Your task to perform on an android device: turn off sleep mode Image 0: 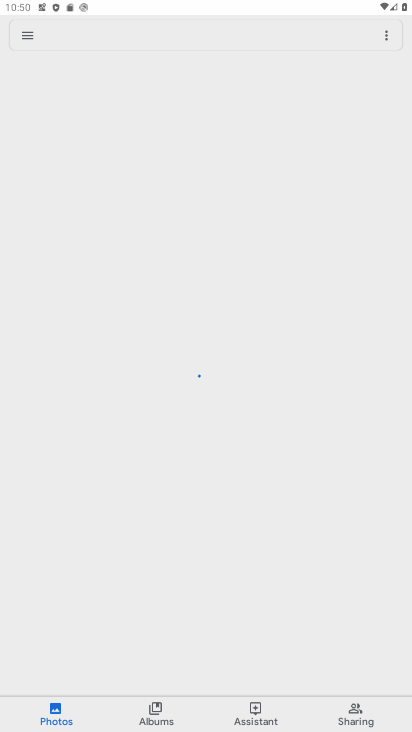
Step 0: press back button
Your task to perform on an android device: turn off sleep mode Image 1: 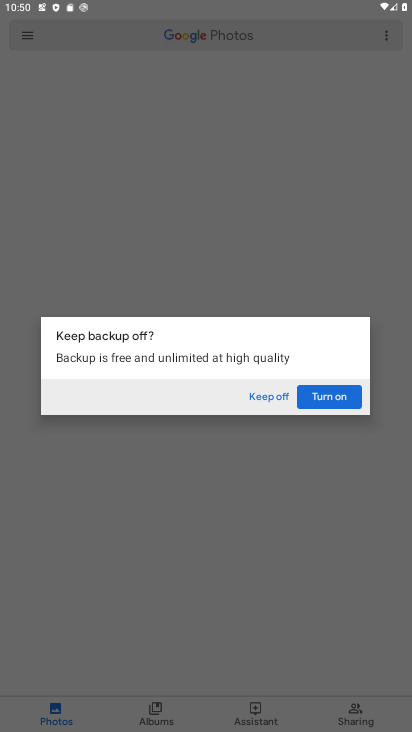
Step 1: press home button
Your task to perform on an android device: turn off sleep mode Image 2: 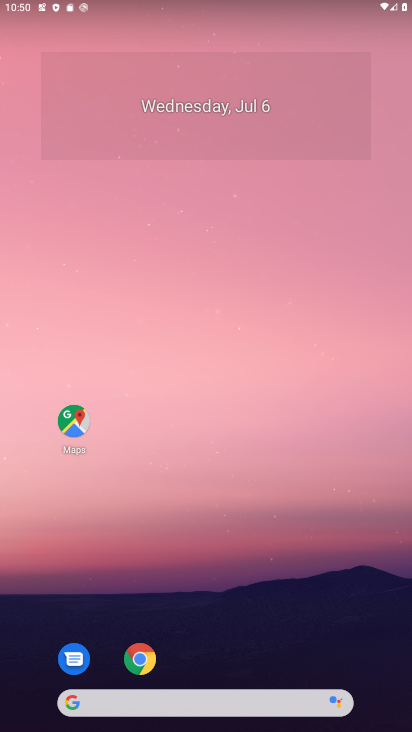
Step 2: drag from (220, 640) to (257, 57)
Your task to perform on an android device: turn off sleep mode Image 3: 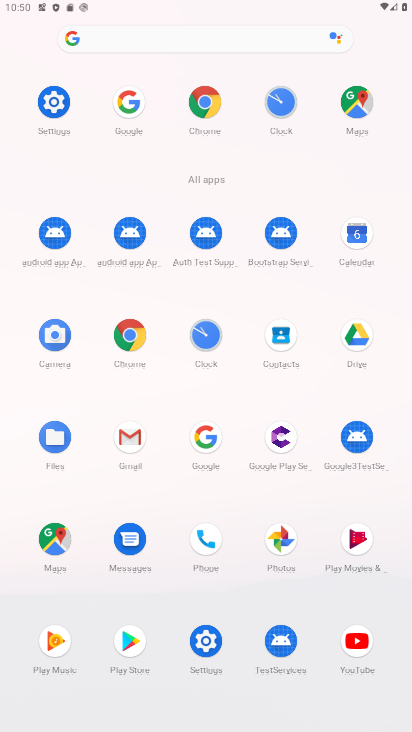
Step 3: click (55, 101)
Your task to perform on an android device: turn off sleep mode Image 4: 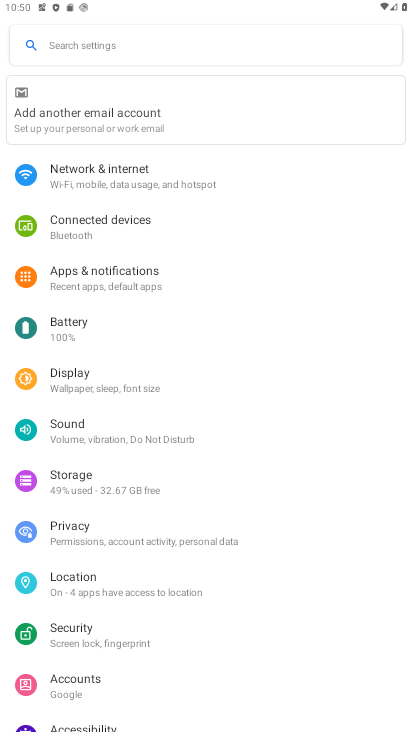
Step 4: click (116, 43)
Your task to perform on an android device: turn off sleep mode Image 5: 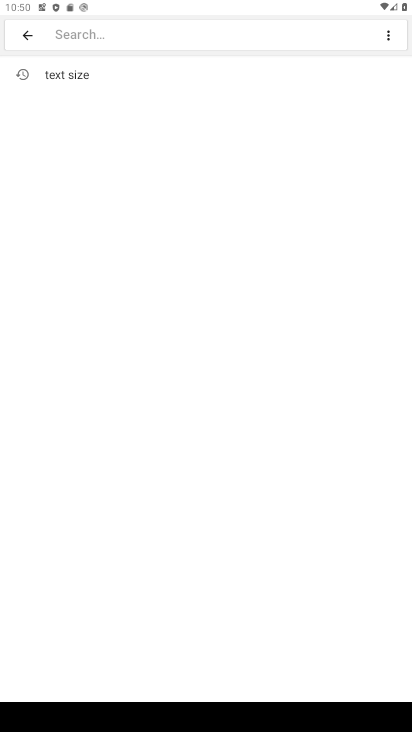
Step 5: type "sleep mode"
Your task to perform on an android device: turn off sleep mode Image 6: 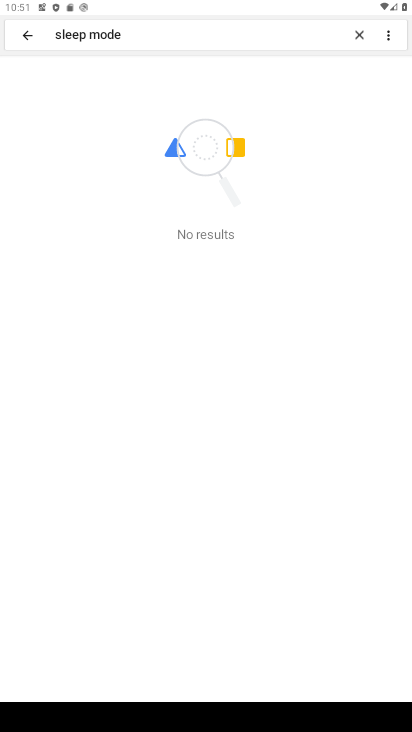
Step 6: task complete